Your task to perform on an android device: open sync settings in chrome Image 0: 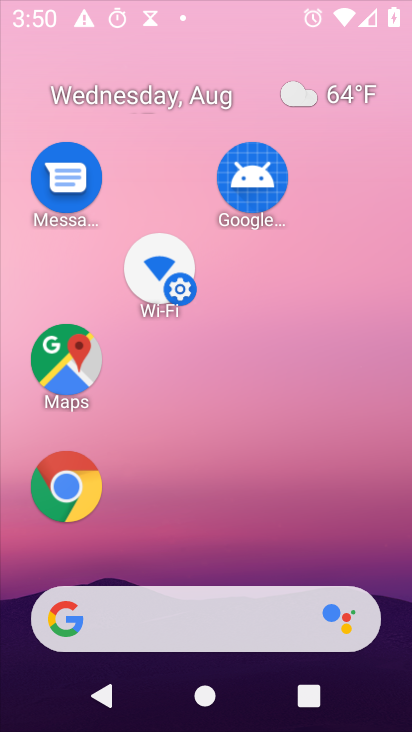
Step 0: press home button
Your task to perform on an android device: open sync settings in chrome Image 1: 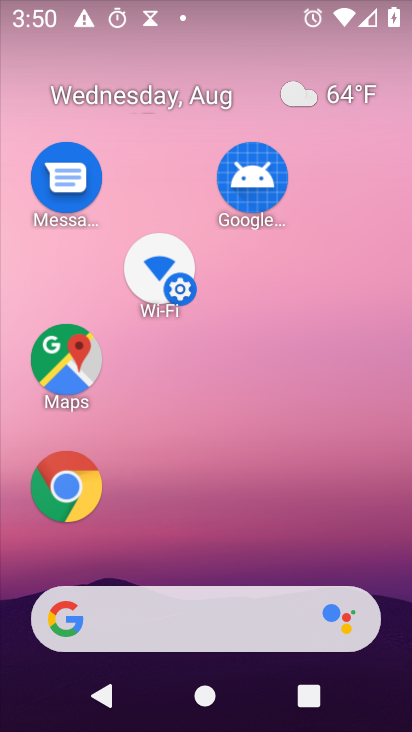
Step 1: click (69, 489)
Your task to perform on an android device: open sync settings in chrome Image 2: 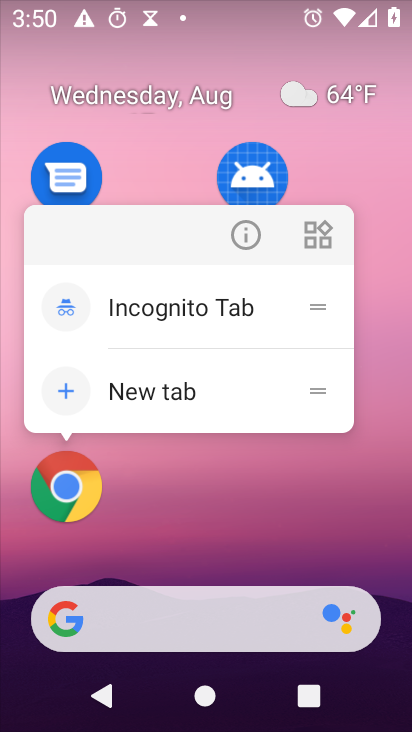
Step 2: click (67, 488)
Your task to perform on an android device: open sync settings in chrome Image 3: 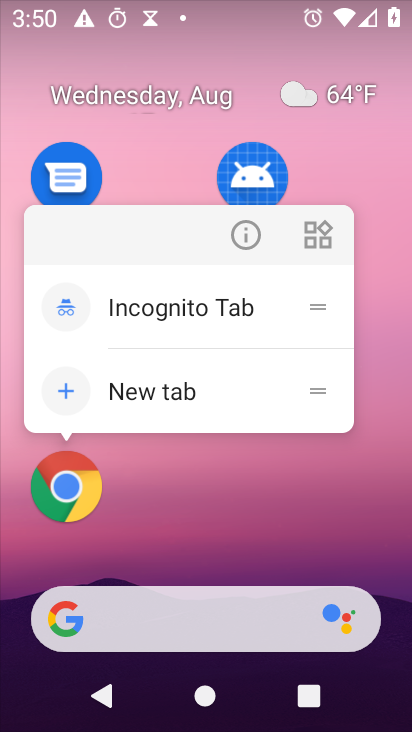
Step 3: click (67, 488)
Your task to perform on an android device: open sync settings in chrome Image 4: 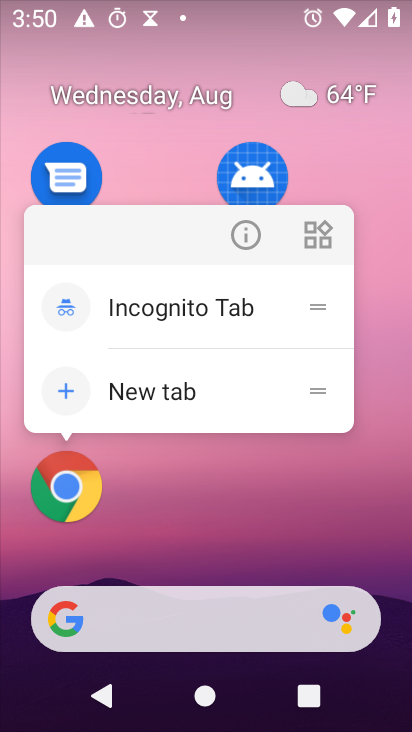
Step 4: click (67, 488)
Your task to perform on an android device: open sync settings in chrome Image 5: 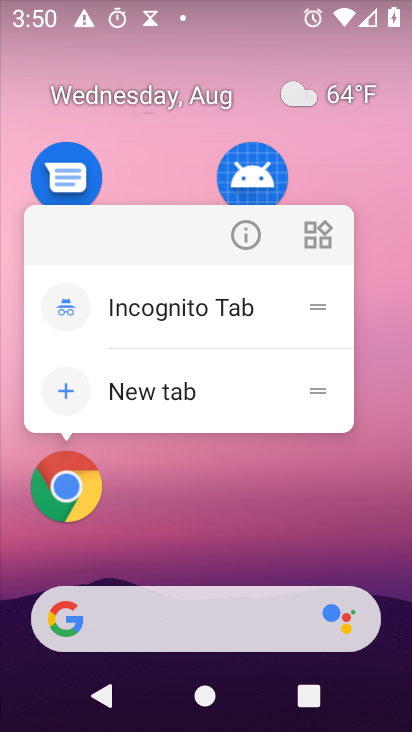
Step 5: click (67, 488)
Your task to perform on an android device: open sync settings in chrome Image 6: 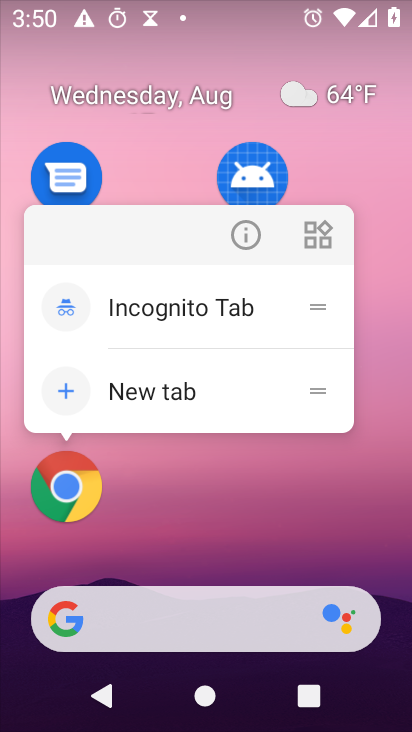
Step 6: click (67, 488)
Your task to perform on an android device: open sync settings in chrome Image 7: 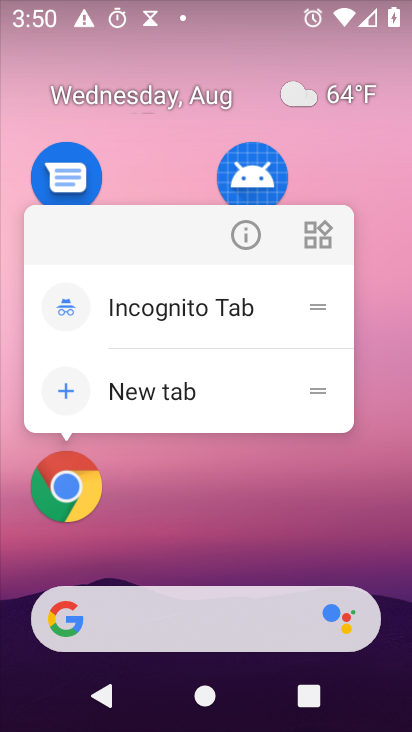
Step 7: click (66, 495)
Your task to perform on an android device: open sync settings in chrome Image 8: 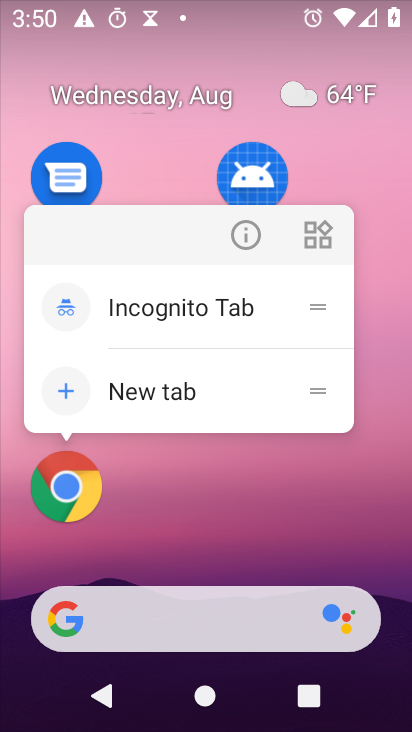
Step 8: click (66, 495)
Your task to perform on an android device: open sync settings in chrome Image 9: 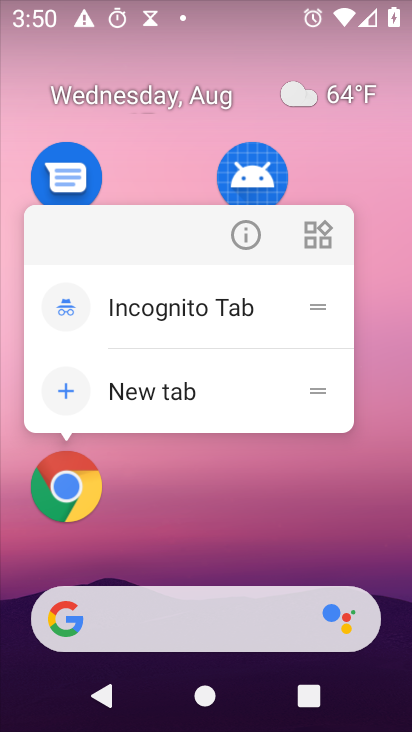
Step 9: click (65, 495)
Your task to perform on an android device: open sync settings in chrome Image 10: 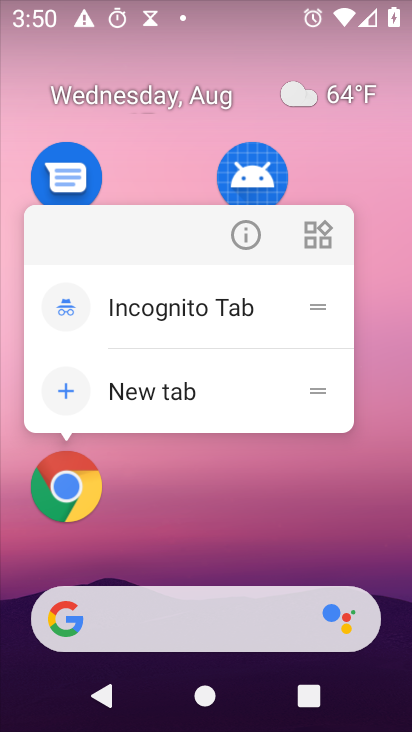
Step 10: click (65, 495)
Your task to perform on an android device: open sync settings in chrome Image 11: 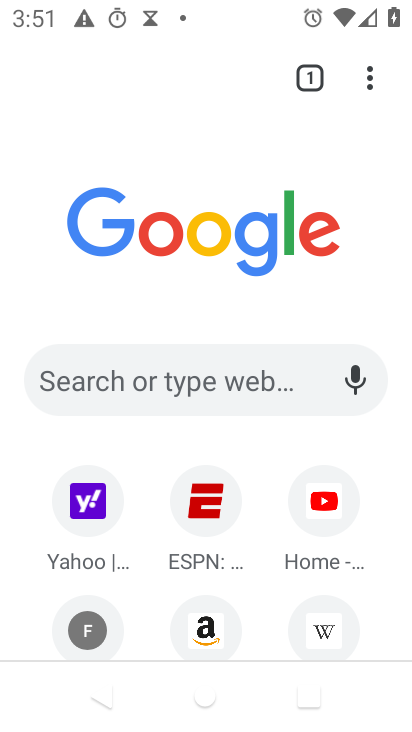
Step 11: drag from (370, 71) to (61, 654)
Your task to perform on an android device: open sync settings in chrome Image 12: 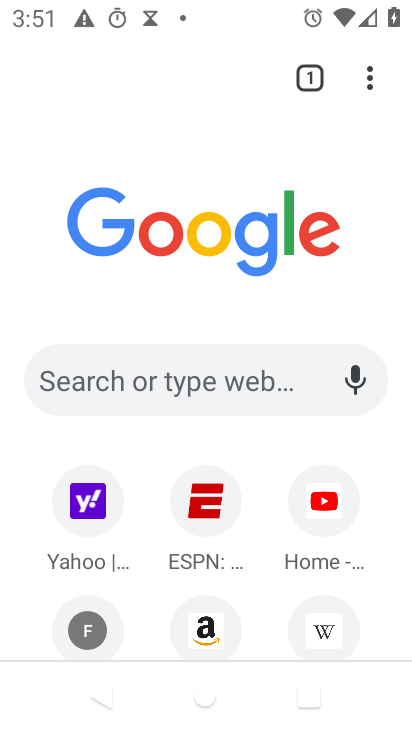
Step 12: click (63, 646)
Your task to perform on an android device: open sync settings in chrome Image 13: 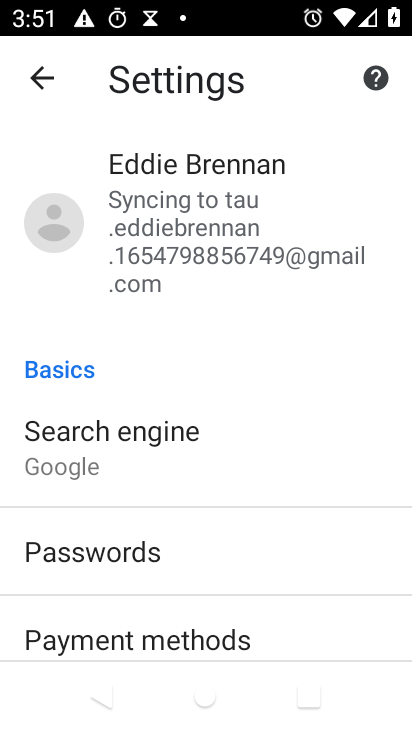
Step 13: click (178, 224)
Your task to perform on an android device: open sync settings in chrome Image 14: 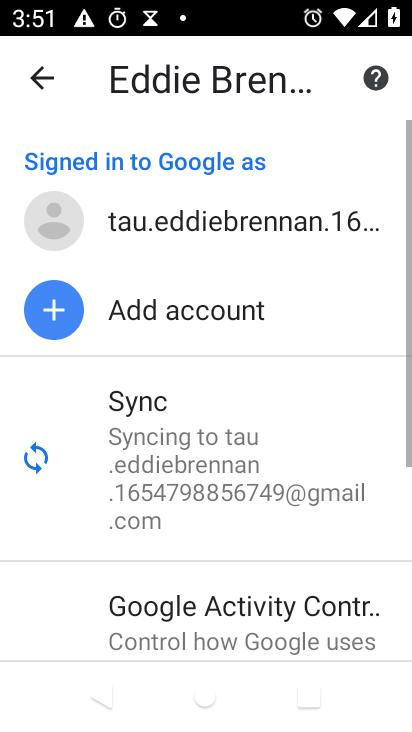
Step 14: click (148, 469)
Your task to perform on an android device: open sync settings in chrome Image 15: 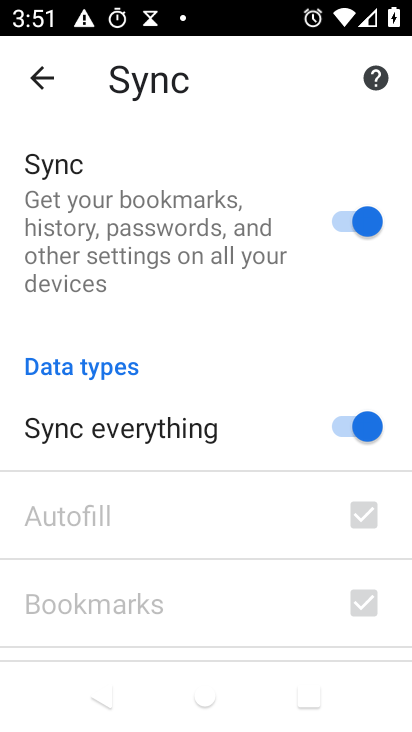
Step 15: task complete